Your task to perform on an android device: Open the calendar app, open the side menu, and click the "Day" option Image 0: 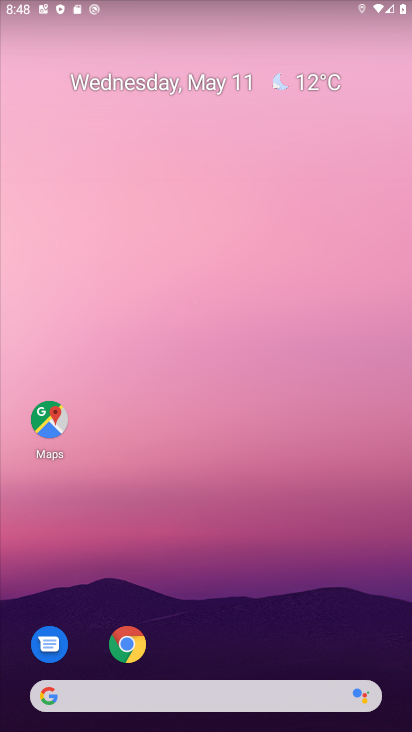
Step 0: drag from (206, 467) to (210, 50)
Your task to perform on an android device: Open the calendar app, open the side menu, and click the "Day" option Image 1: 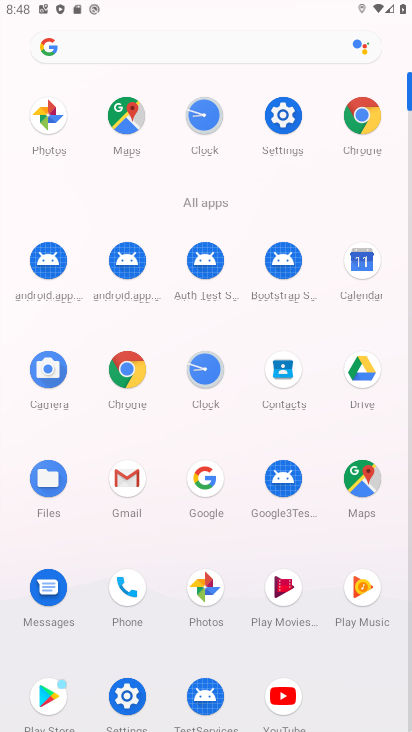
Step 1: click (371, 270)
Your task to perform on an android device: Open the calendar app, open the side menu, and click the "Day" option Image 2: 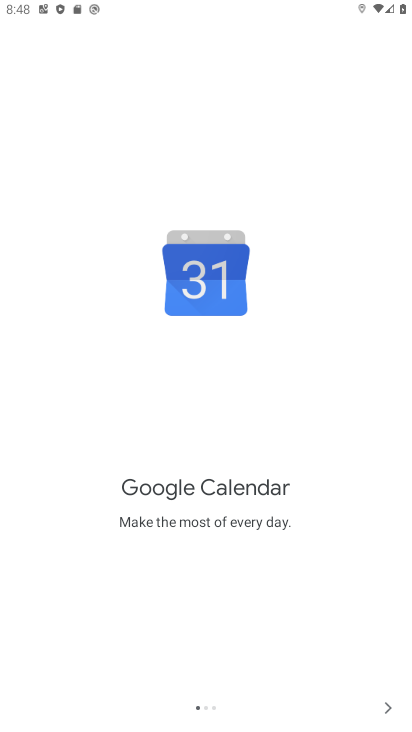
Step 2: click (382, 711)
Your task to perform on an android device: Open the calendar app, open the side menu, and click the "Day" option Image 3: 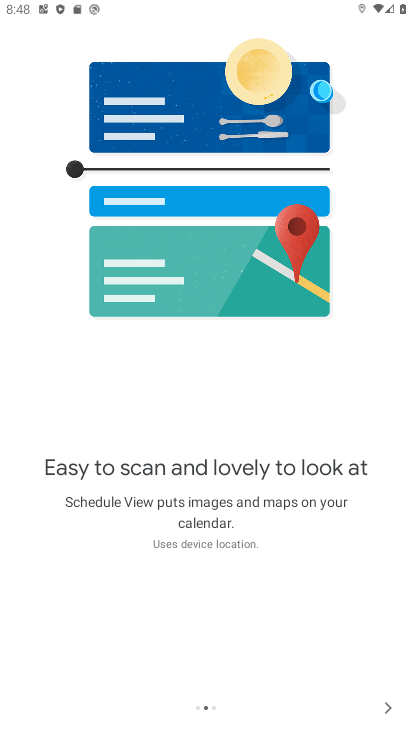
Step 3: click (382, 710)
Your task to perform on an android device: Open the calendar app, open the side menu, and click the "Day" option Image 4: 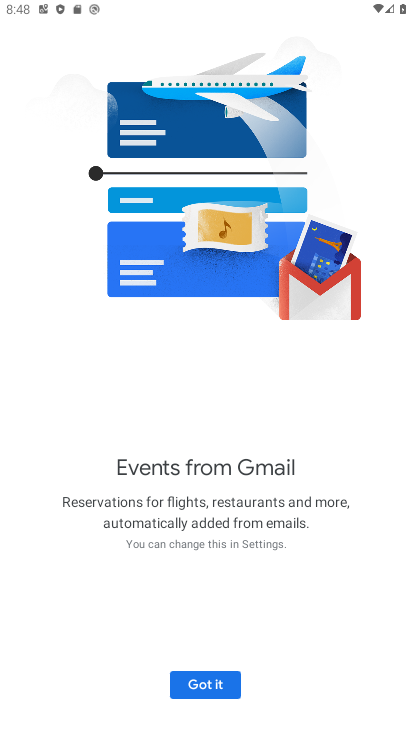
Step 4: click (193, 683)
Your task to perform on an android device: Open the calendar app, open the side menu, and click the "Day" option Image 5: 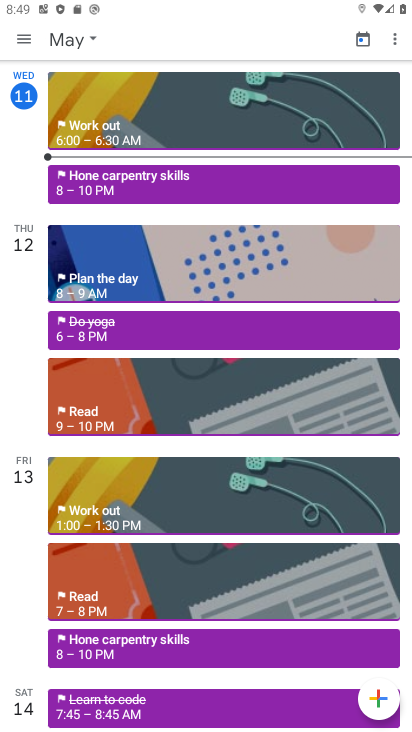
Step 5: click (20, 37)
Your task to perform on an android device: Open the calendar app, open the side menu, and click the "Day" option Image 6: 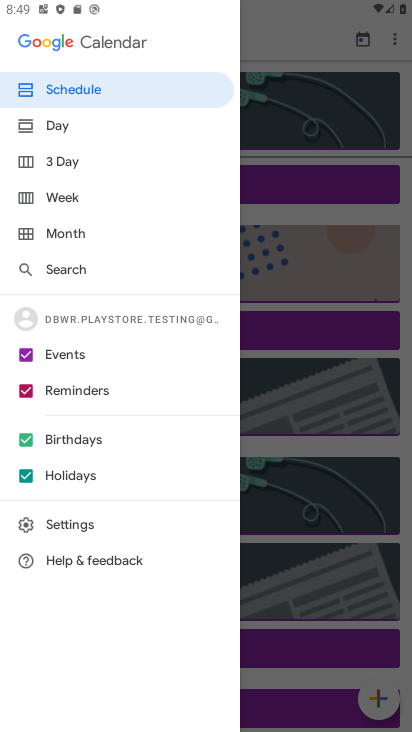
Step 6: click (56, 127)
Your task to perform on an android device: Open the calendar app, open the side menu, and click the "Day" option Image 7: 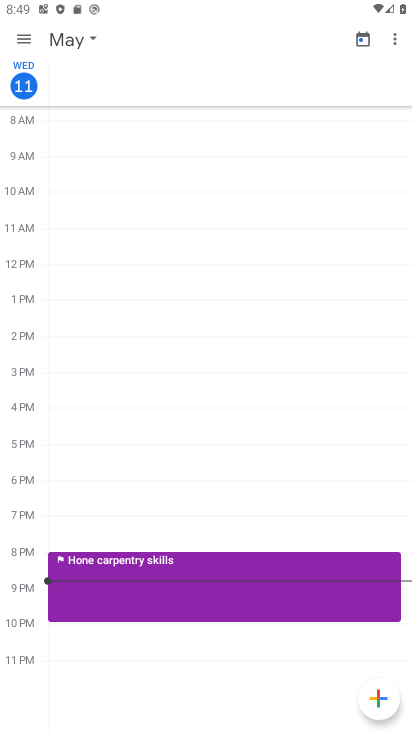
Step 7: task complete